Your task to perform on an android device: Go to Yahoo.com Image 0: 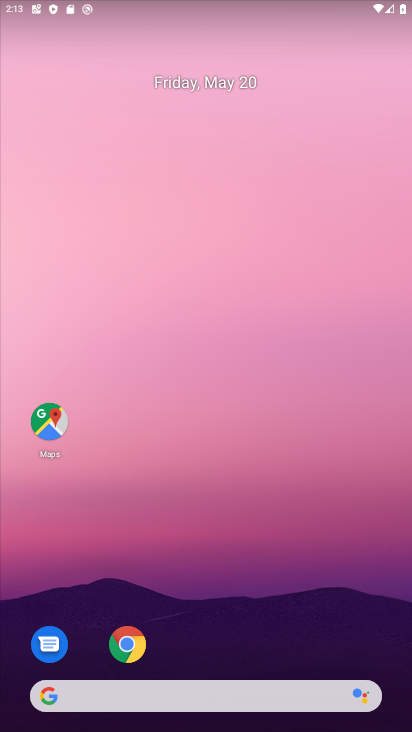
Step 0: click (135, 646)
Your task to perform on an android device: Go to Yahoo.com Image 1: 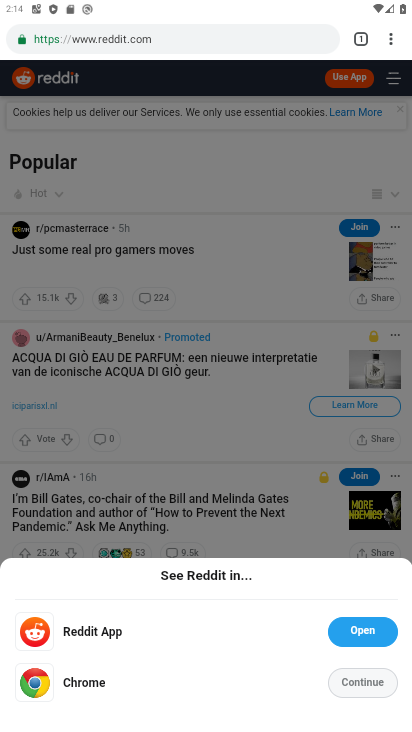
Step 1: click (173, 32)
Your task to perform on an android device: Go to Yahoo.com Image 2: 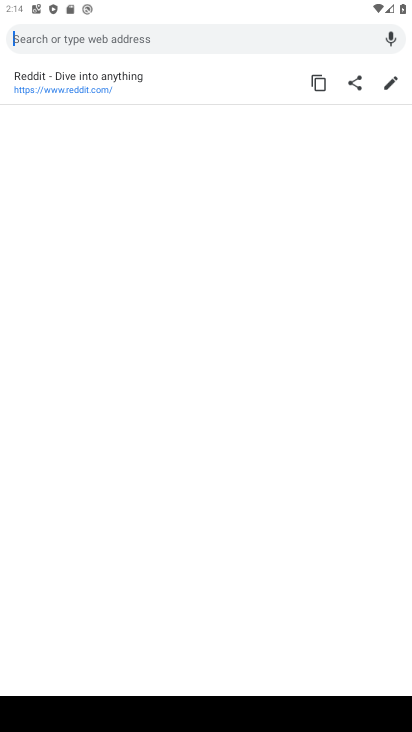
Step 2: type "yahoo.com"
Your task to perform on an android device: Go to Yahoo.com Image 3: 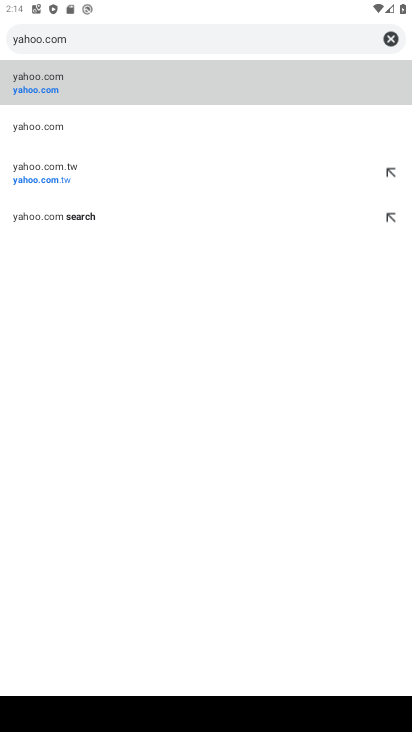
Step 3: click (90, 83)
Your task to perform on an android device: Go to Yahoo.com Image 4: 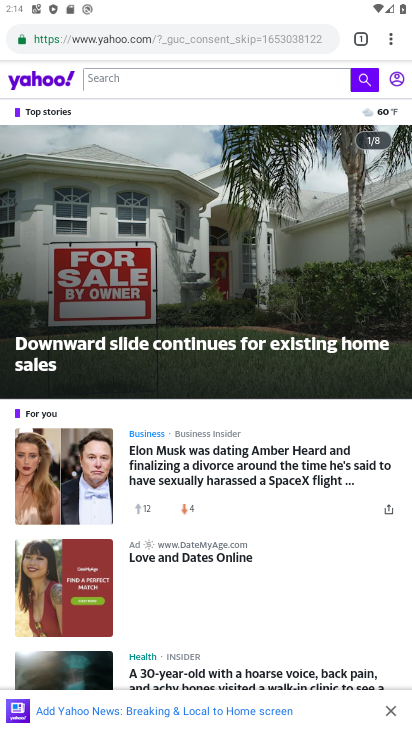
Step 4: task complete